Your task to perform on an android device: turn pop-ups off in chrome Image 0: 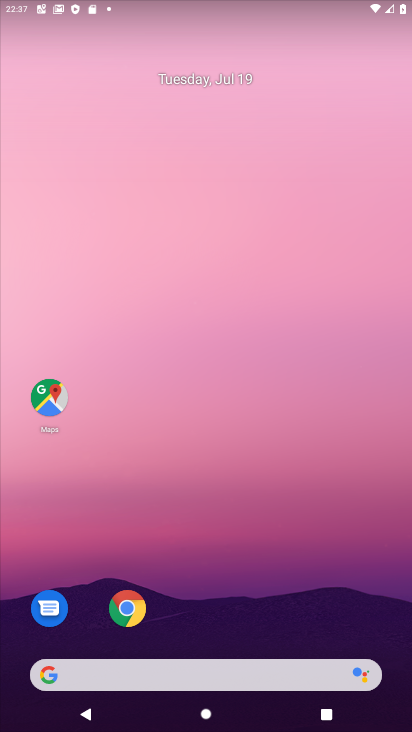
Step 0: drag from (348, 618) to (260, 46)
Your task to perform on an android device: turn pop-ups off in chrome Image 1: 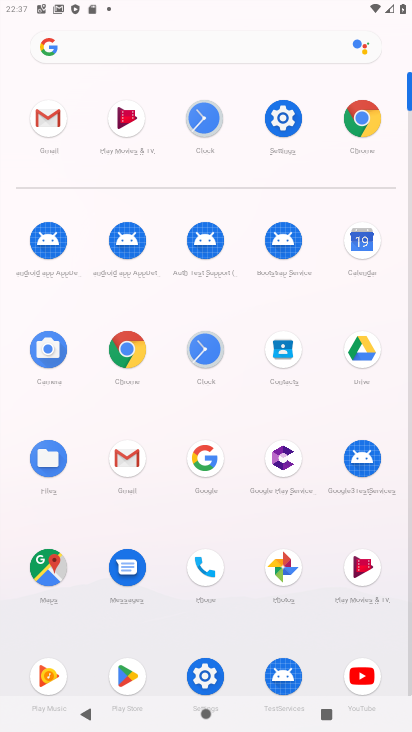
Step 1: click (367, 115)
Your task to perform on an android device: turn pop-ups off in chrome Image 2: 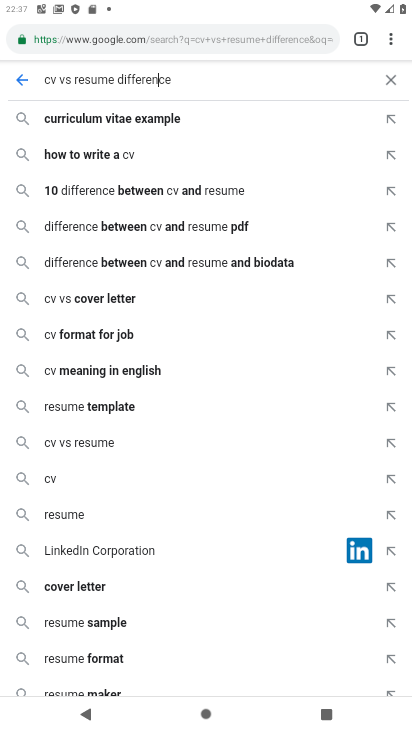
Step 2: drag from (391, 32) to (253, 427)
Your task to perform on an android device: turn pop-ups off in chrome Image 3: 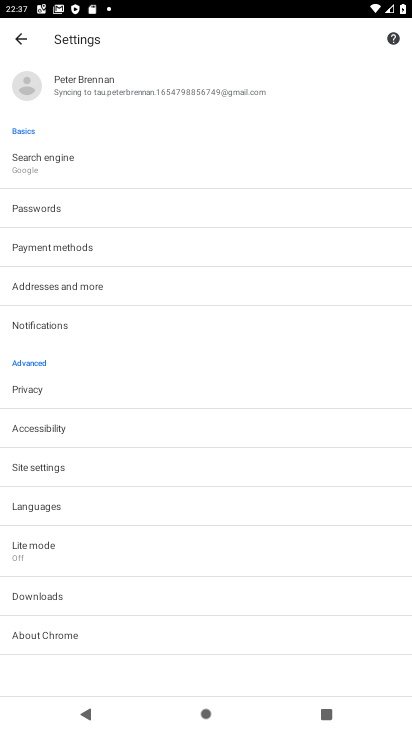
Step 3: click (87, 471)
Your task to perform on an android device: turn pop-ups off in chrome Image 4: 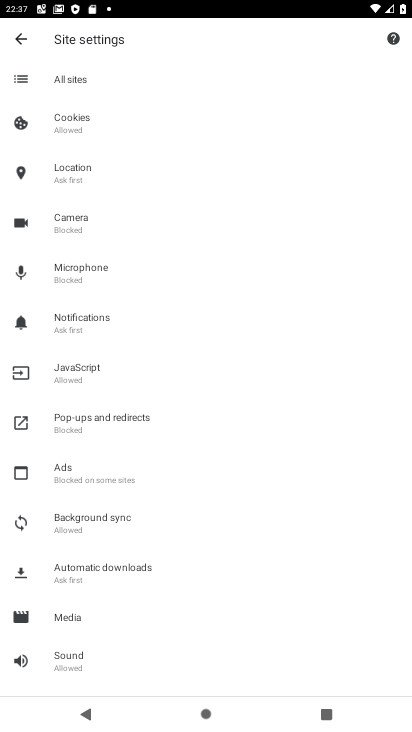
Step 4: click (115, 427)
Your task to perform on an android device: turn pop-ups off in chrome Image 5: 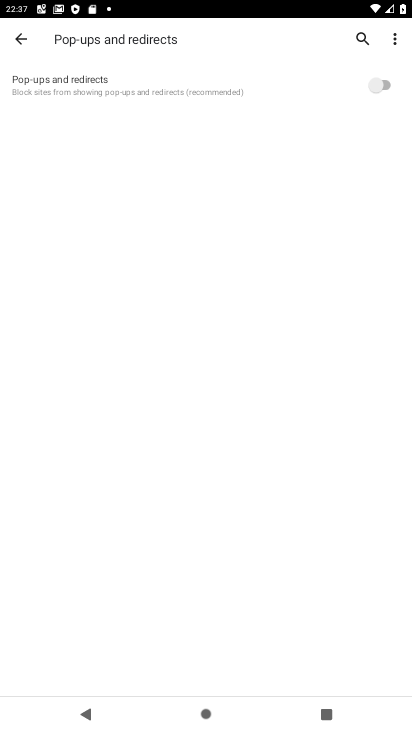
Step 5: task complete